Your task to perform on an android device: check the backup settings in the google photos Image 0: 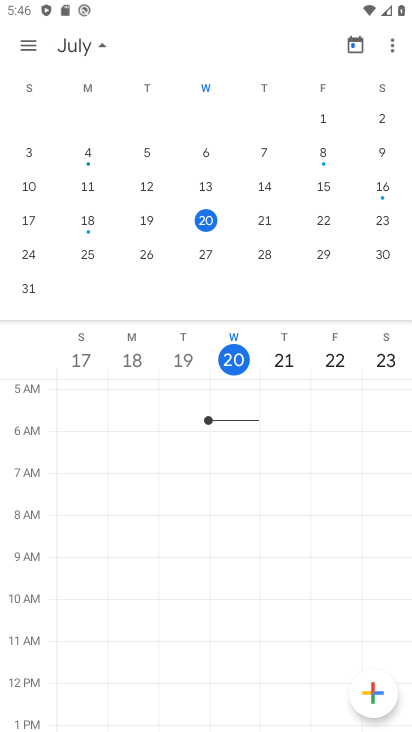
Step 0: press home button
Your task to perform on an android device: check the backup settings in the google photos Image 1: 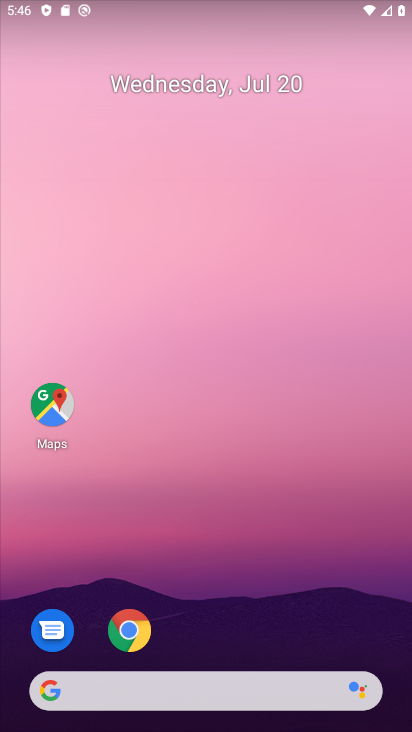
Step 1: drag from (227, 565) to (268, 94)
Your task to perform on an android device: check the backup settings in the google photos Image 2: 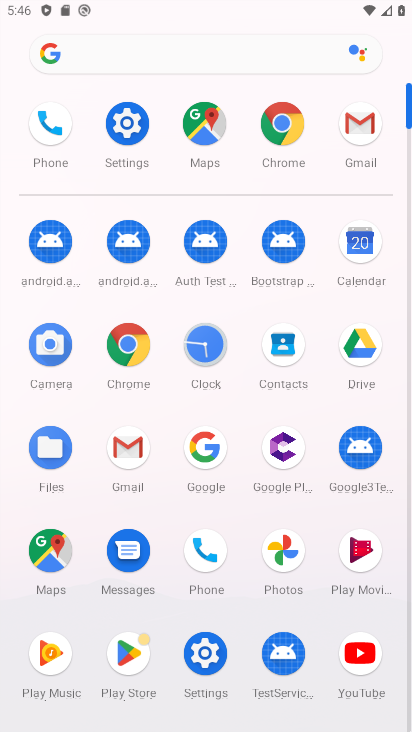
Step 2: click (290, 554)
Your task to perform on an android device: check the backup settings in the google photos Image 3: 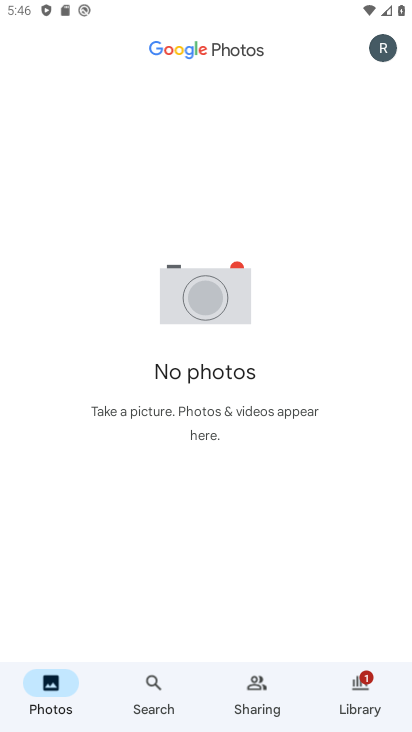
Step 3: click (389, 42)
Your task to perform on an android device: check the backup settings in the google photos Image 4: 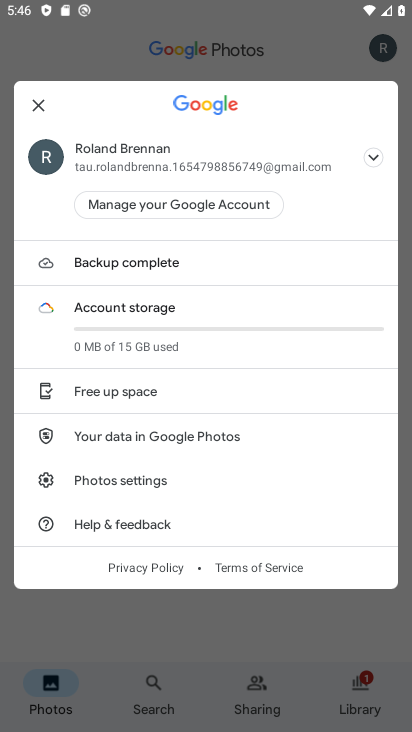
Step 4: click (145, 482)
Your task to perform on an android device: check the backup settings in the google photos Image 5: 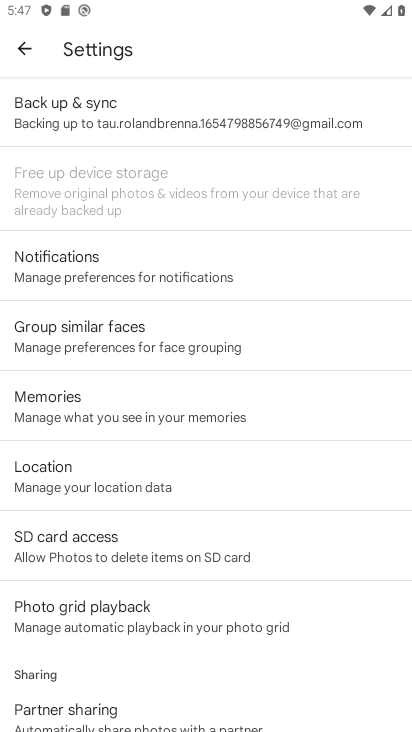
Step 5: click (168, 124)
Your task to perform on an android device: check the backup settings in the google photos Image 6: 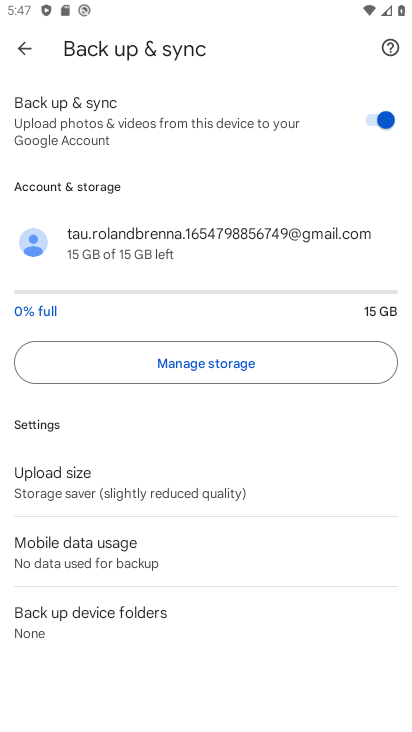
Step 6: task complete